Your task to perform on an android device: Go to accessibility settings Image 0: 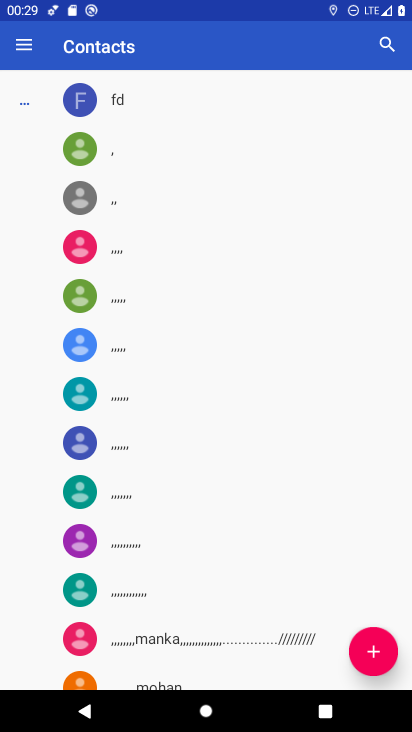
Step 0: press home button
Your task to perform on an android device: Go to accessibility settings Image 1: 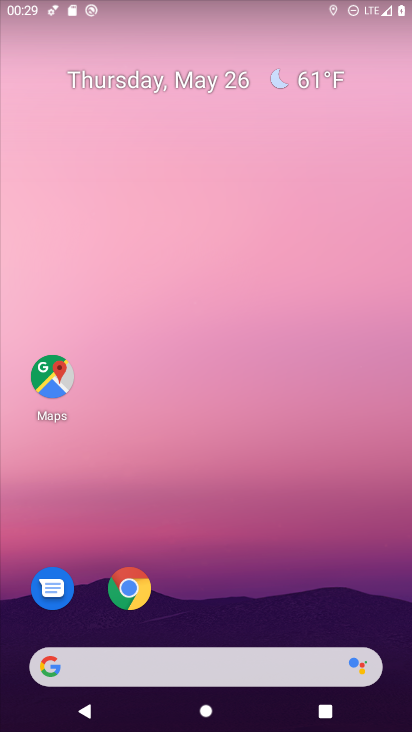
Step 1: drag from (247, 546) to (172, 235)
Your task to perform on an android device: Go to accessibility settings Image 2: 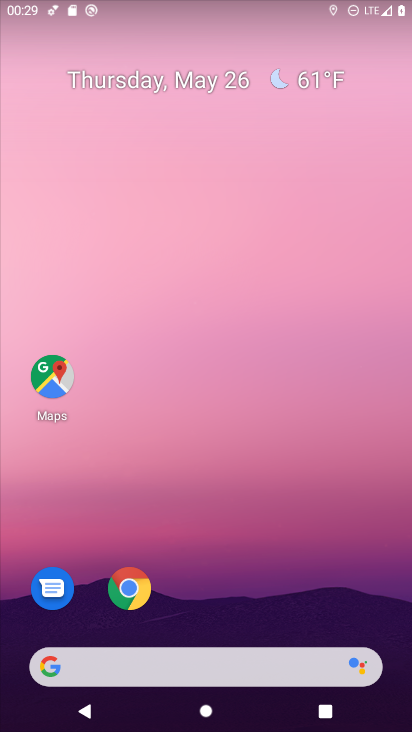
Step 2: drag from (227, 510) to (164, 97)
Your task to perform on an android device: Go to accessibility settings Image 3: 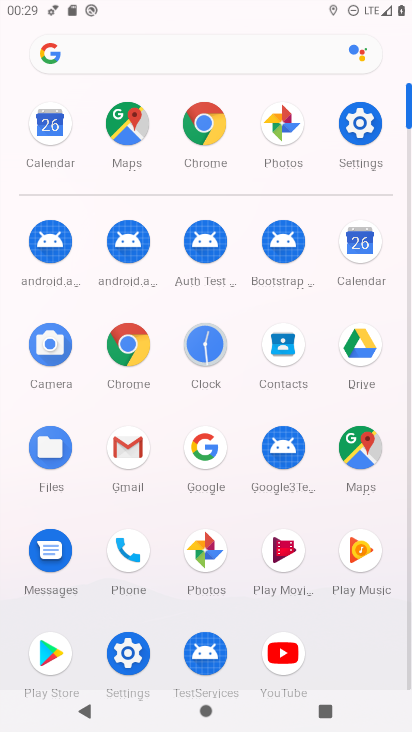
Step 3: click (344, 114)
Your task to perform on an android device: Go to accessibility settings Image 4: 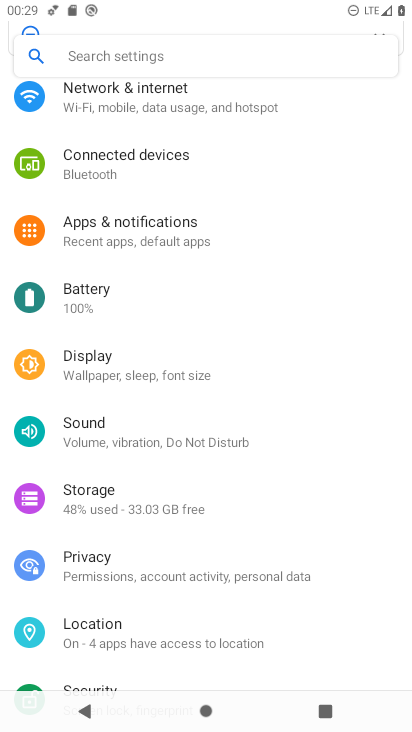
Step 4: drag from (155, 581) to (118, 352)
Your task to perform on an android device: Go to accessibility settings Image 5: 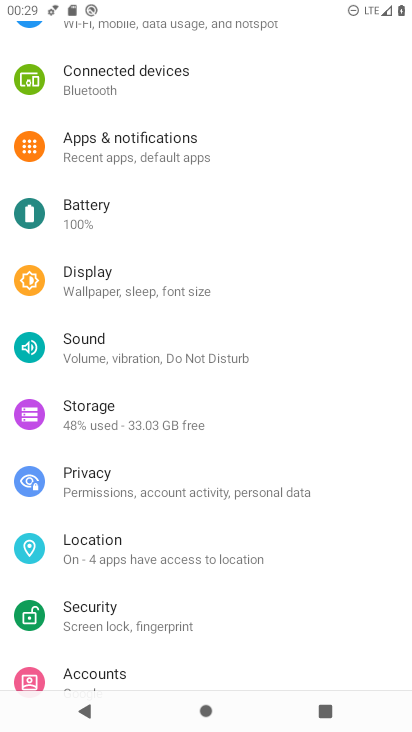
Step 5: drag from (220, 552) to (189, 308)
Your task to perform on an android device: Go to accessibility settings Image 6: 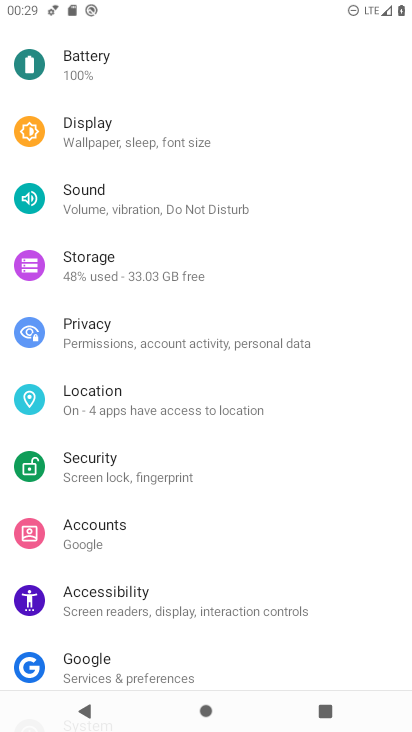
Step 6: click (104, 606)
Your task to perform on an android device: Go to accessibility settings Image 7: 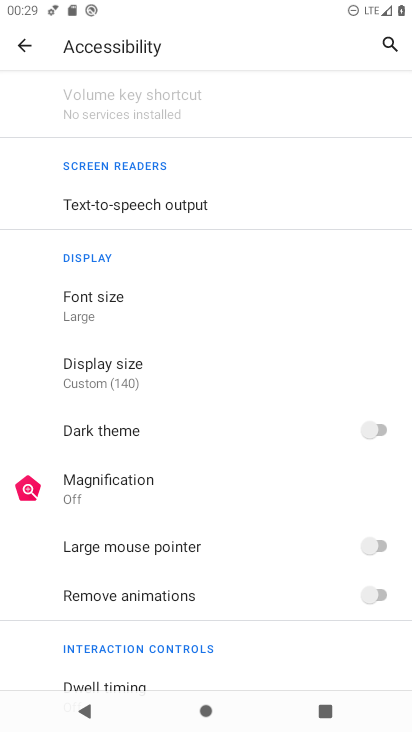
Step 7: task complete